Your task to perform on an android device: turn on javascript in the chrome app Image 0: 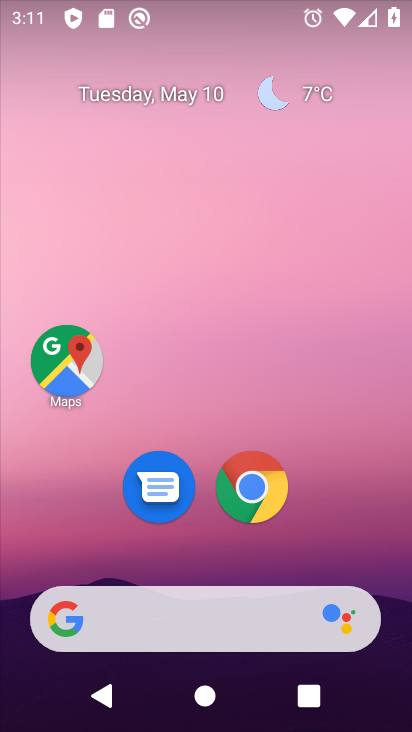
Step 0: click (258, 484)
Your task to perform on an android device: turn on javascript in the chrome app Image 1: 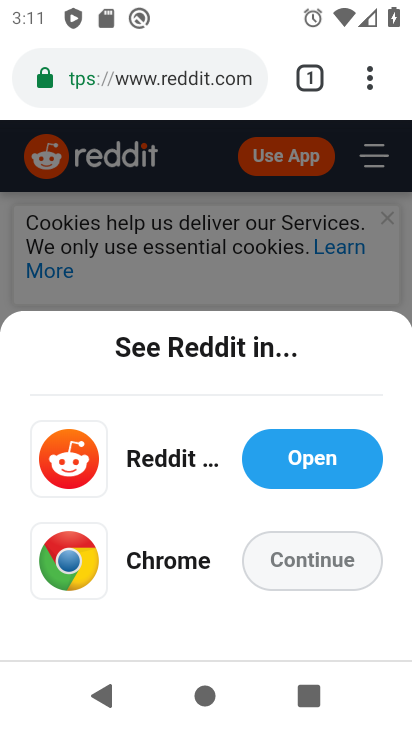
Step 1: click (364, 69)
Your task to perform on an android device: turn on javascript in the chrome app Image 2: 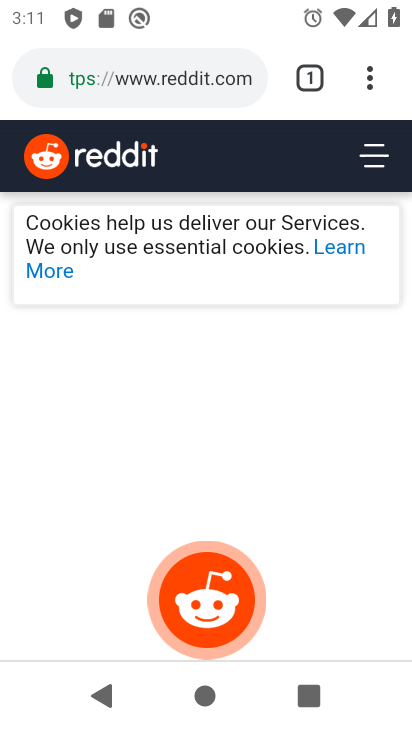
Step 2: drag from (369, 80) to (130, 553)
Your task to perform on an android device: turn on javascript in the chrome app Image 3: 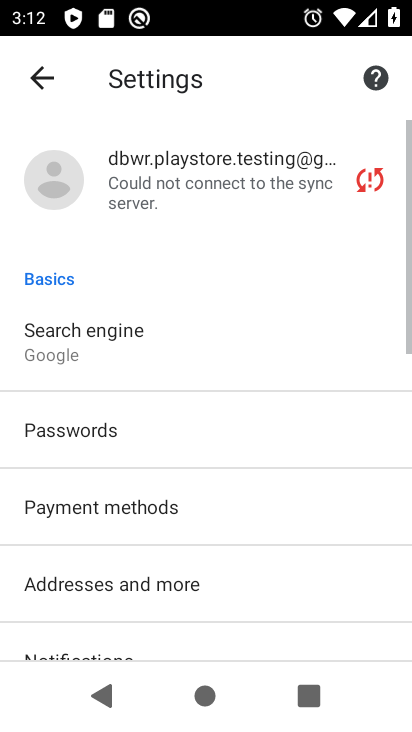
Step 3: drag from (231, 602) to (282, 271)
Your task to perform on an android device: turn on javascript in the chrome app Image 4: 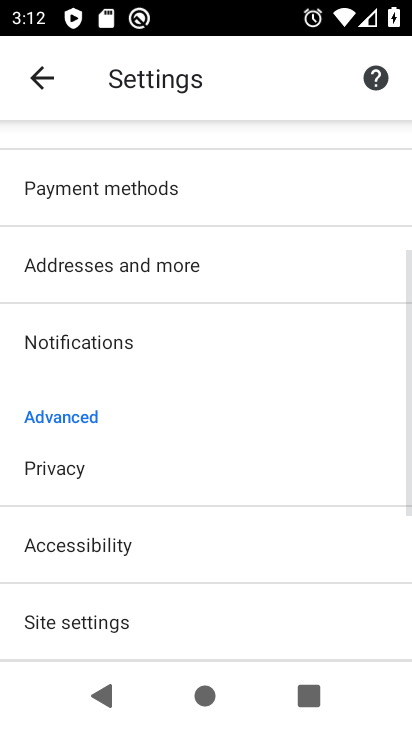
Step 4: drag from (178, 517) to (239, 280)
Your task to perform on an android device: turn on javascript in the chrome app Image 5: 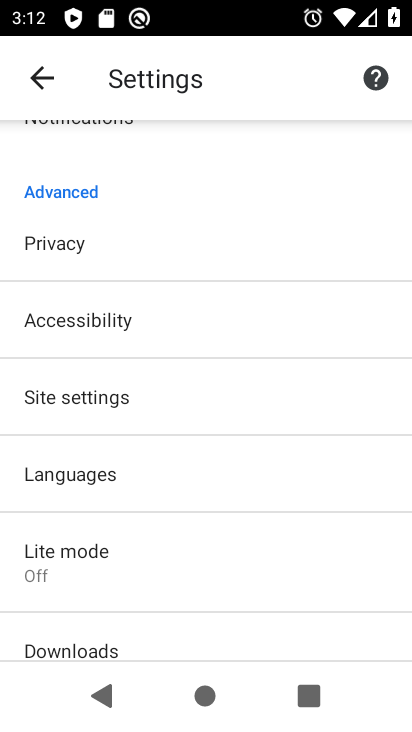
Step 5: click (79, 395)
Your task to perform on an android device: turn on javascript in the chrome app Image 6: 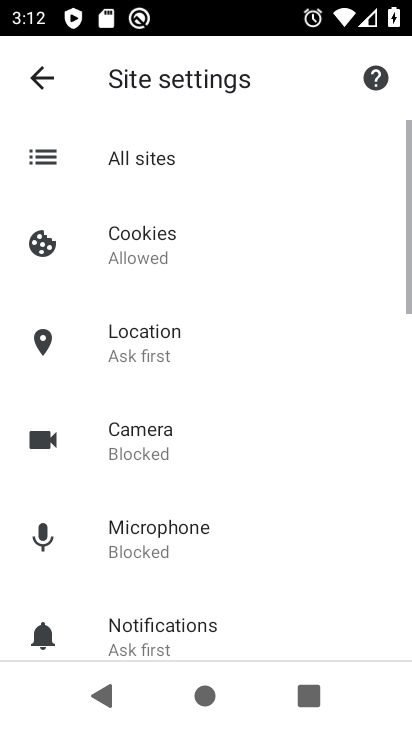
Step 6: drag from (316, 596) to (317, 254)
Your task to perform on an android device: turn on javascript in the chrome app Image 7: 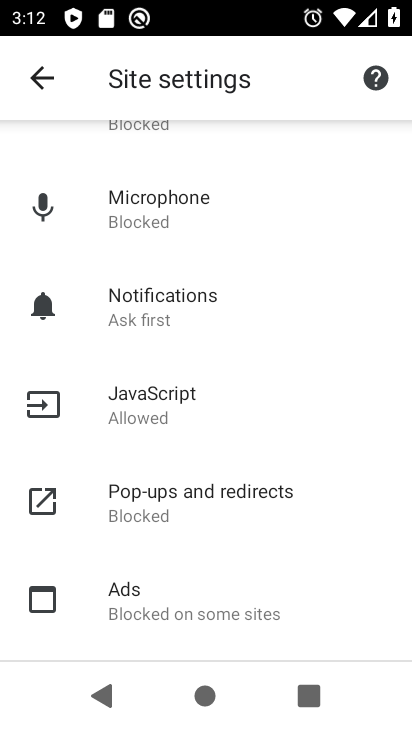
Step 7: click (162, 392)
Your task to perform on an android device: turn on javascript in the chrome app Image 8: 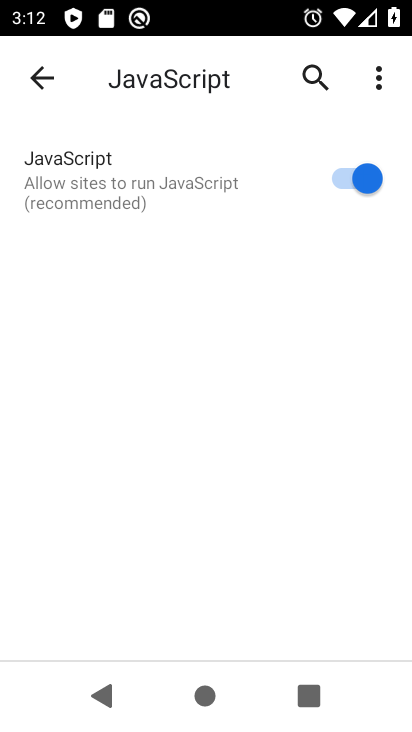
Step 8: task complete